Your task to perform on an android device: turn smart compose on in the gmail app Image 0: 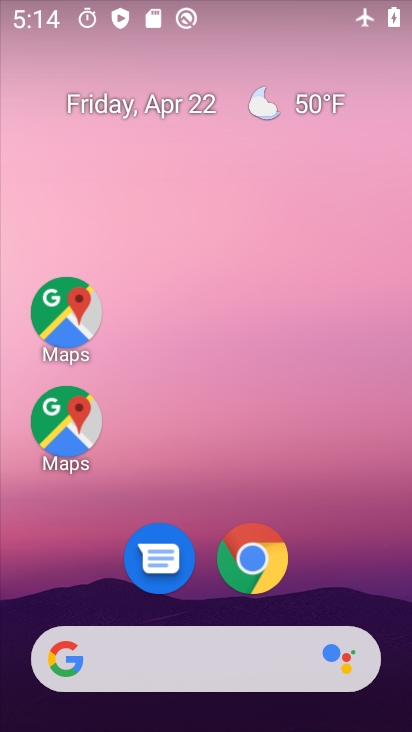
Step 0: drag from (304, 489) to (297, 145)
Your task to perform on an android device: turn smart compose on in the gmail app Image 1: 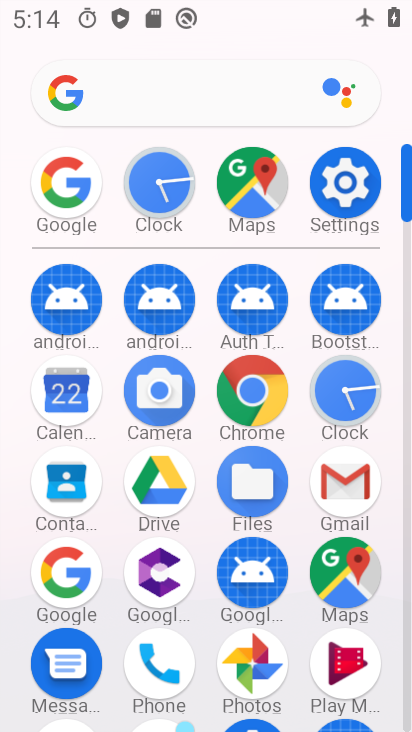
Step 1: click (347, 476)
Your task to perform on an android device: turn smart compose on in the gmail app Image 2: 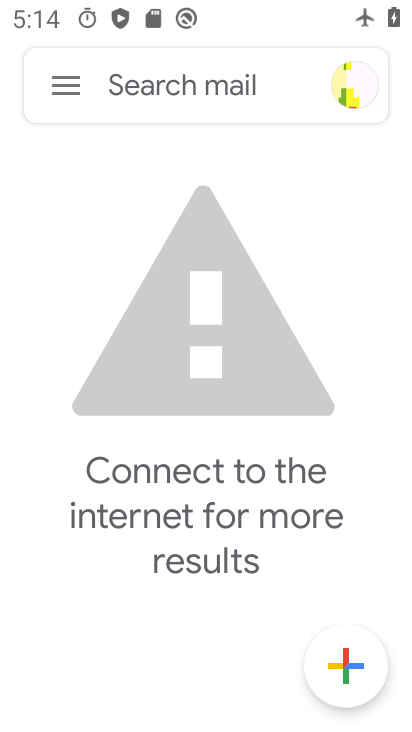
Step 2: click (57, 88)
Your task to perform on an android device: turn smart compose on in the gmail app Image 3: 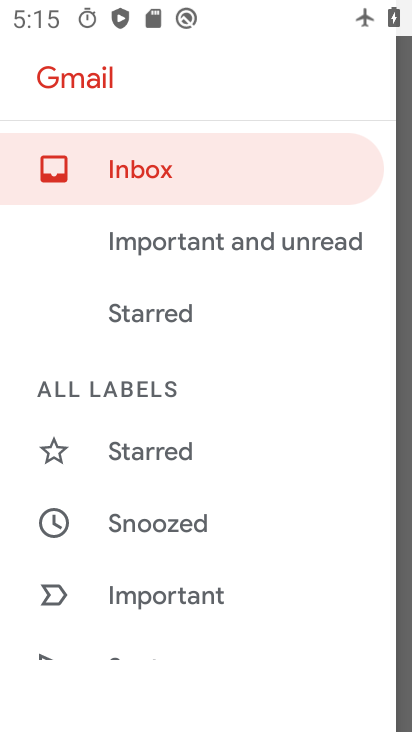
Step 3: drag from (188, 393) to (163, 223)
Your task to perform on an android device: turn smart compose on in the gmail app Image 4: 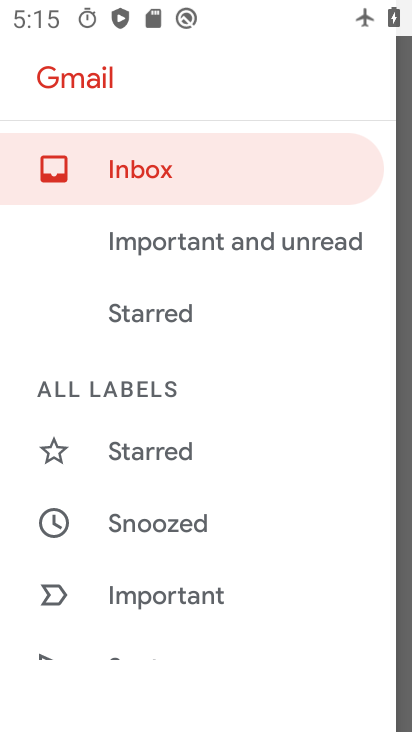
Step 4: drag from (240, 576) to (223, 155)
Your task to perform on an android device: turn smart compose on in the gmail app Image 5: 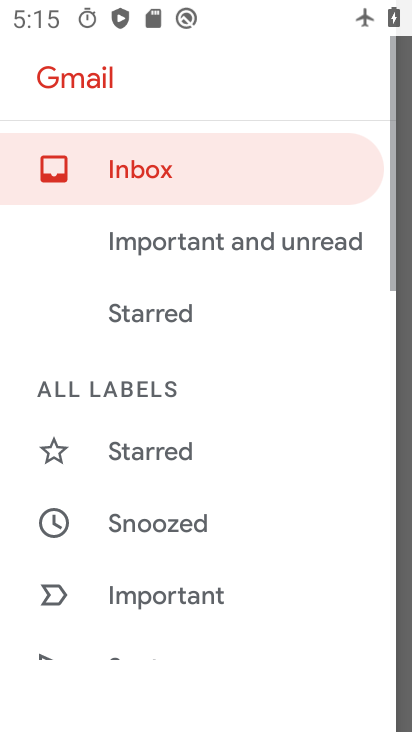
Step 5: drag from (207, 520) to (273, 75)
Your task to perform on an android device: turn smart compose on in the gmail app Image 6: 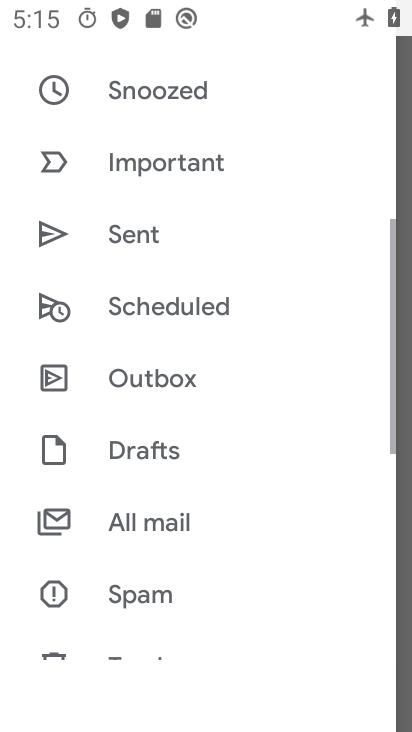
Step 6: drag from (225, 489) to (240, 30)
Your task to perform on an android device: turn smart compose on in the gmail app Image 7: 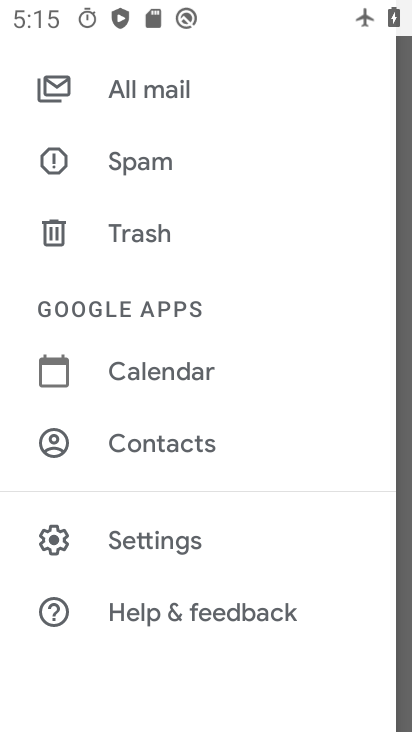
Step 7: click (145, 536)
Your task to perform on an android device: turn smart compose on in the gmail app Image 8: 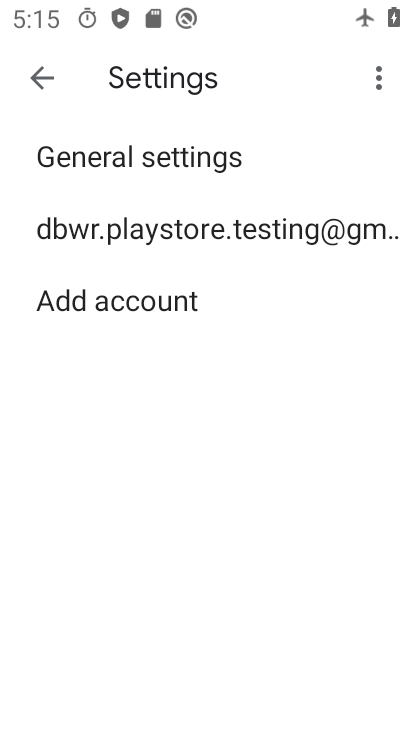
Step 8: click (249, 226)
Your task to perform on an android device: turn smart compose on in the gmail app Image 9: 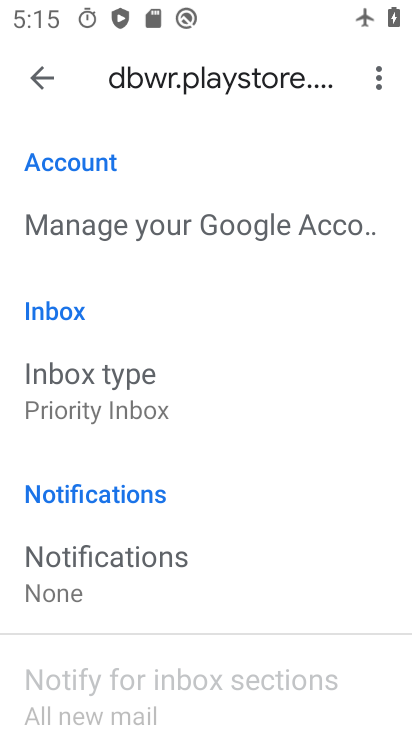
Step 9: task complete